Your task to perform on an android device: Go to network settings Image 0: 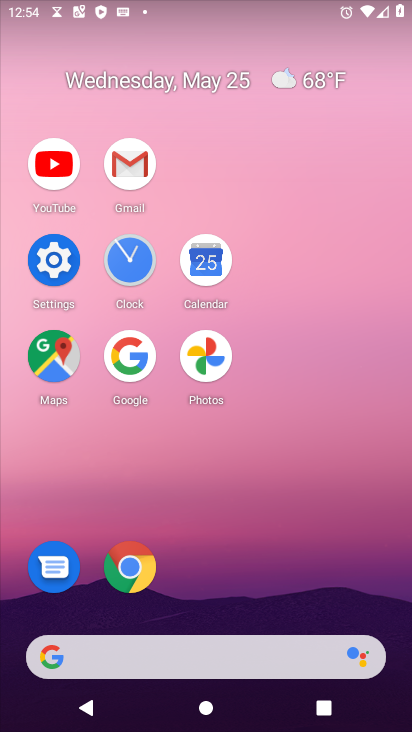
Step 0: click (57, 256)
Your task to perform on an android device: Go to network settings Image 1: 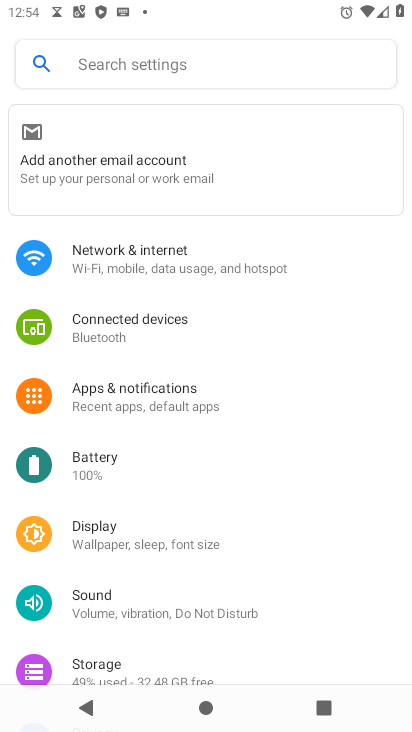
Step 1: click (115, 264)
Your task to perform on an android device: Go to network settings Image 2: 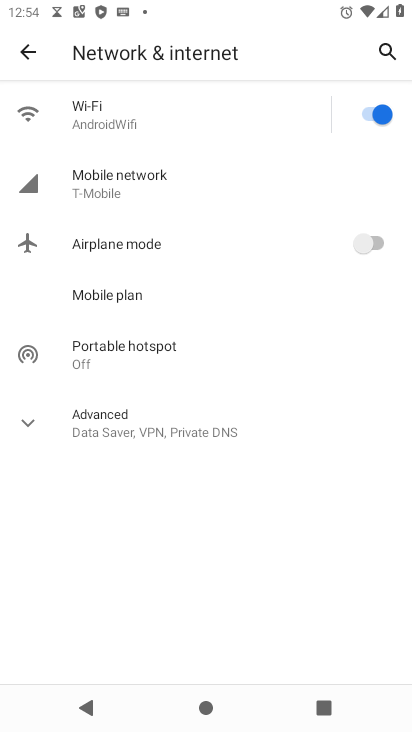
Step 2: task complete